Your task to perform on an android device: Open calendar and show me the third week of next month Image 0: 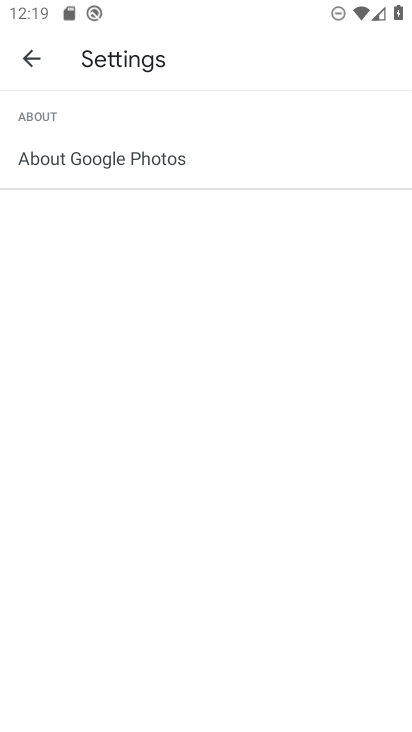
Step 0: press home button
Your task to perform on an android device: Open calendar and show me the third week of next month Image 1: 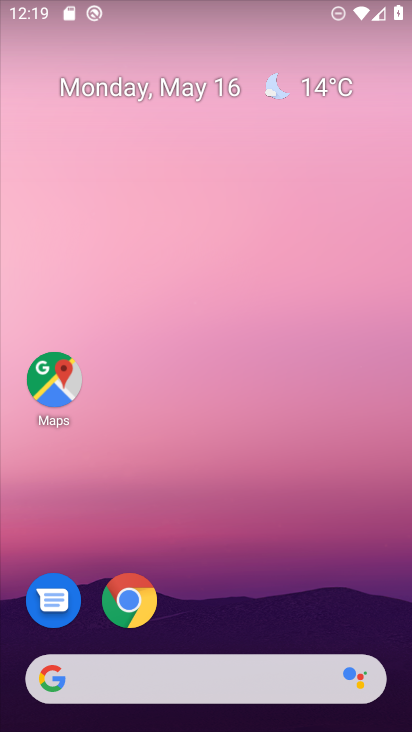
Step 1: drag from (211, 637) to (208, 49)
Your task to perform on an android device: Open calendar and show me the third week of next month Image 2: 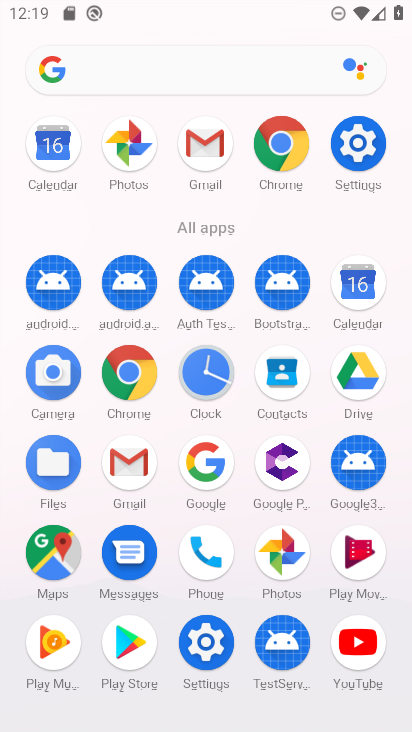
Step 2: click (356, 275)
Your task to perform on an android device: Open calendar and show me the third week of next month Image 3: 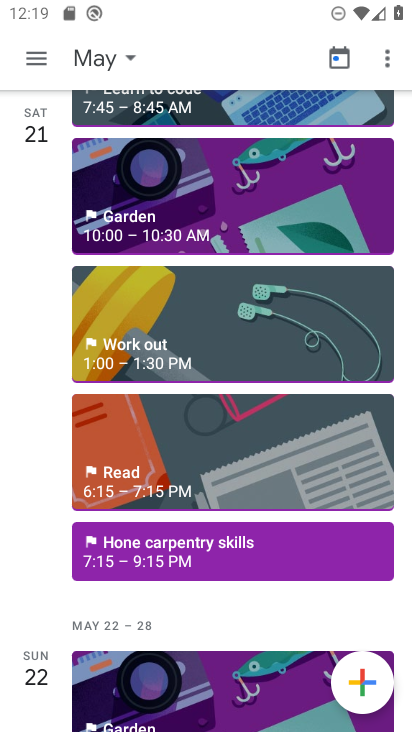
Step 3: click (42, 58)
Your task to perform on an android device: Open calendar and show me the third week of next month Image 4: 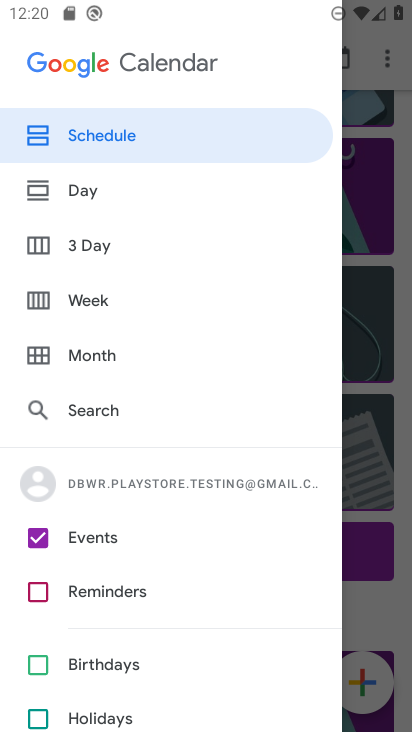
Step 4: click (65, 299)
Your task to perform on an android device: Open calendar and show me the third week of next month Image 5: 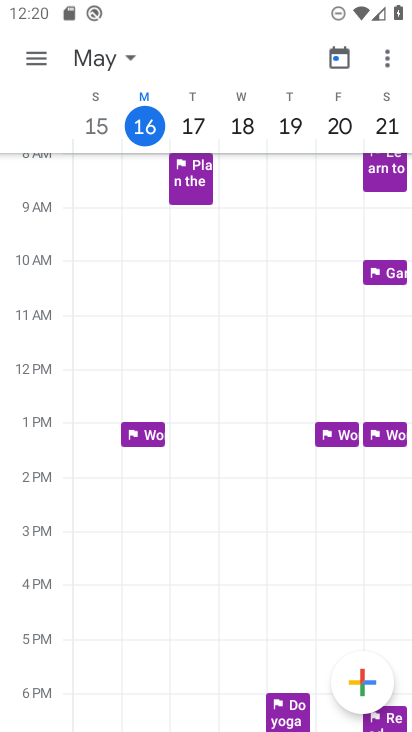
Step 5: drag from (391, 119) to (0, 113)
Your task to perform on an android device: Open calendar and show me the third week of next month Image 6: 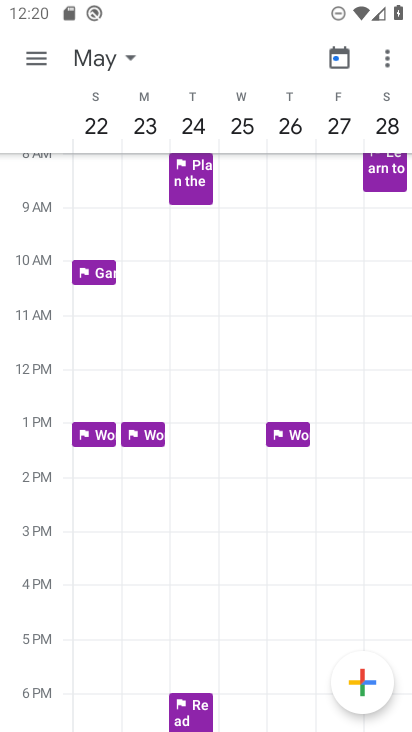
Step 6: drag from (386, 116) to (0, 146)
Your task to perform on an android device: Open calendar and show me the third week of next month Image 7: 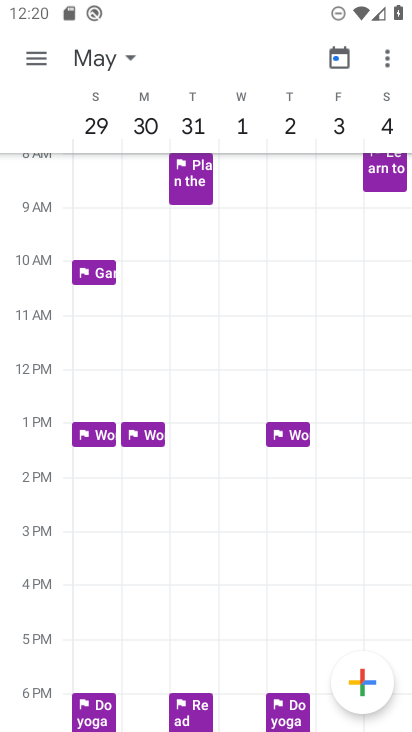
Step 7: drag from (384, 131) to (71, 114)
Your task to perform on an android device: Open calendar and show me the third week of next month Image 8: 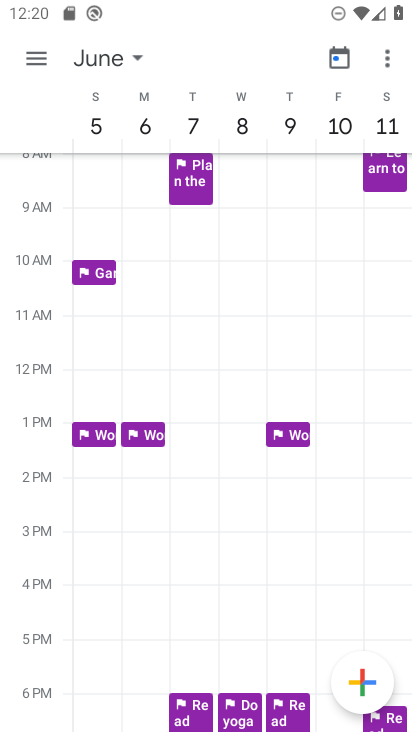
Step 8: drag from (389, 126) to (56, 135)
Your task to perform on an android device: Open calendar and show me the third week of next month Image 9: 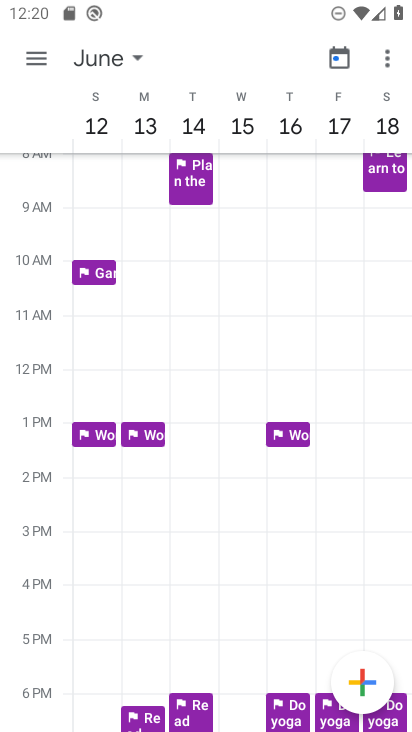
Step 9: drag from (381, 125) to (2, 122)
Your task to perform on an android device: Open calendar and show me the third week of next month Image 10: 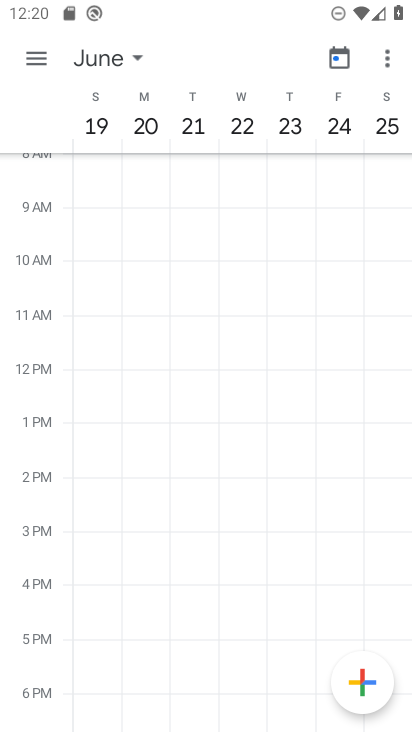
Step 10: drag from (98, 122) to (392, 142)
Your task to perform on an android device: Open calendar and show me the third week of next month Image 11: 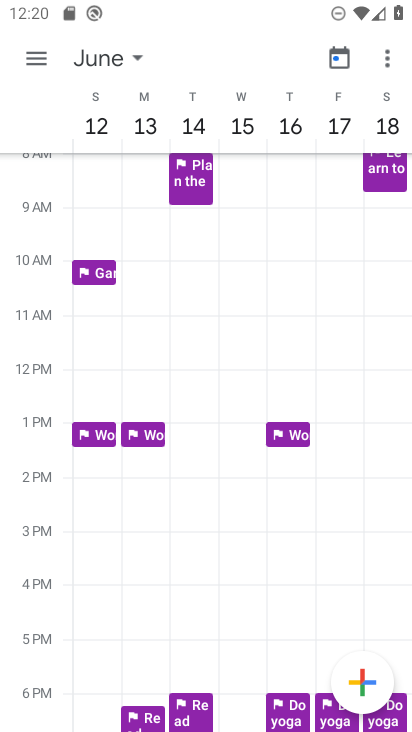
Step 11: click (95, 121)
Your task to perform on an android device: Open calendar and show me the third week of next month Image 12: 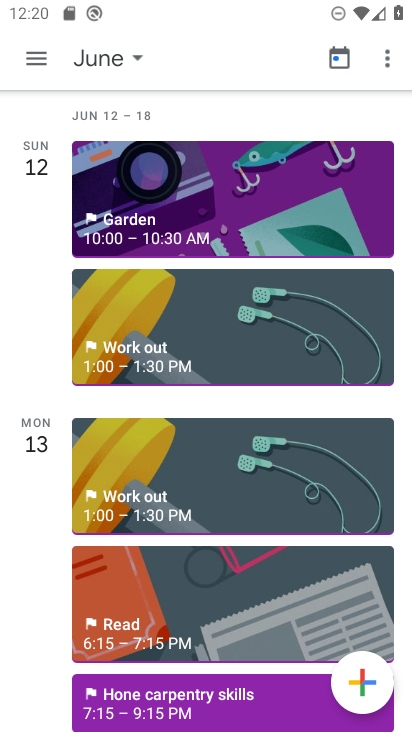
Step 12: task complete